Your task to perform on an android device: check data usage Image 0: 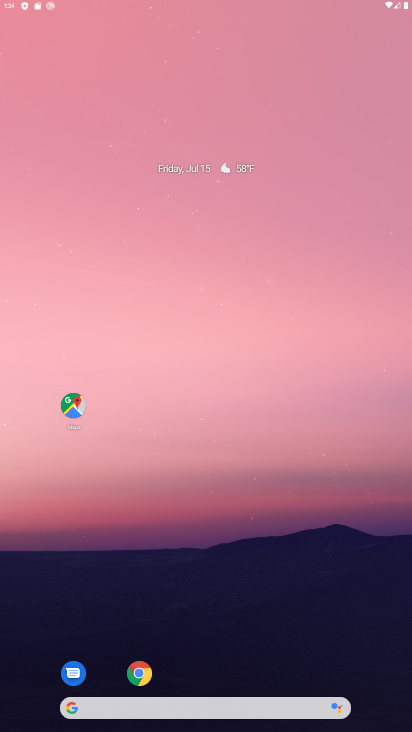
Step 0: drag from (286, 306) to (211, 218)
Your task to perform on an android device: check data usage Image 1: 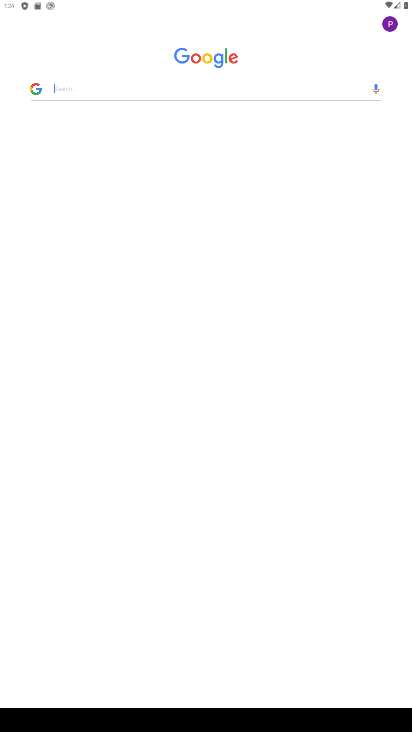
Step 1: press home button
Your task to perform on an android device: check data usage Image 2: 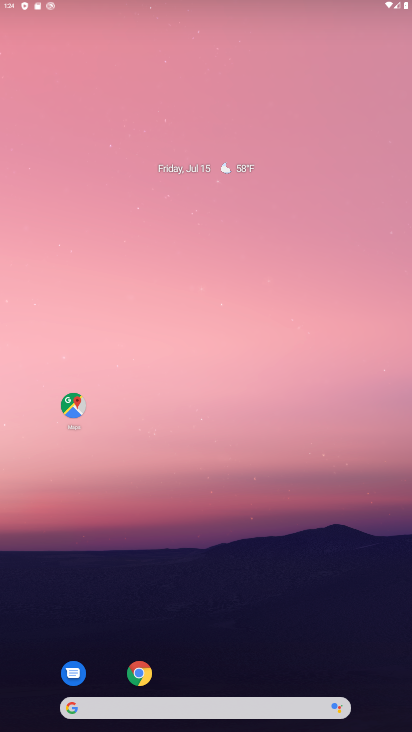
Step 2: drag from (210, 687) to (196, 163)
Your task to perform on an android device: check data usage Image 3: 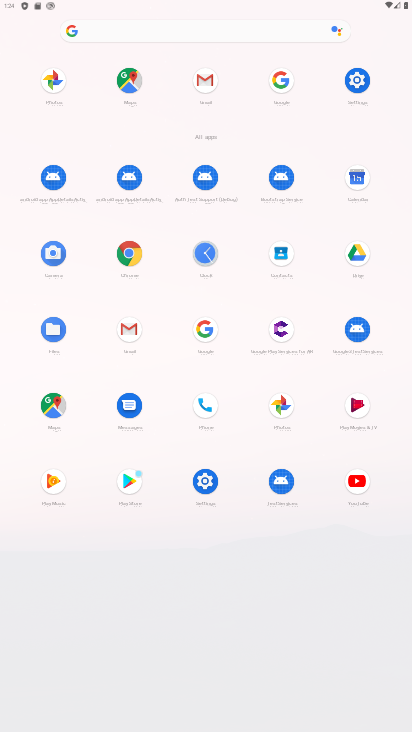
Step 3: click (356, 85)
Your task to perform on an android device: check data usage Image 4: 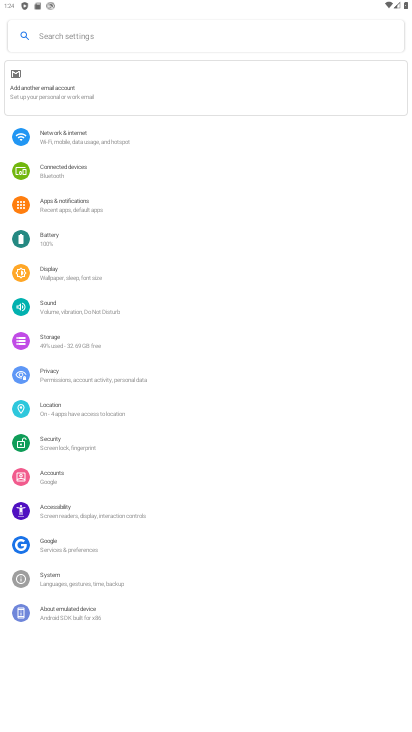
Step 4: click (64, 138)
Your task to perform on an android device: check data usage Image 5: 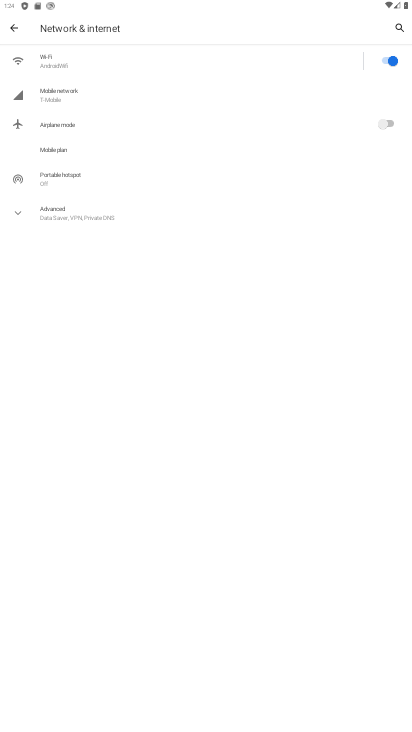
Step 5: click (74, 97)
Your task to perform on an android device: check data usage Image 6: 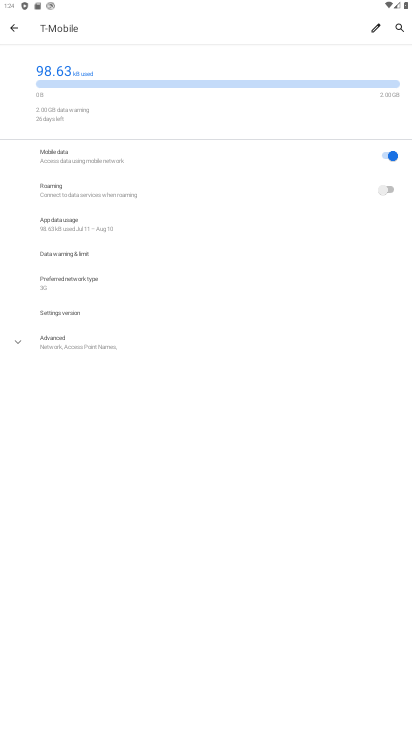
Step 6: task complete